Your task to perform on an android device: Open Maps and search for coffee Image 0: 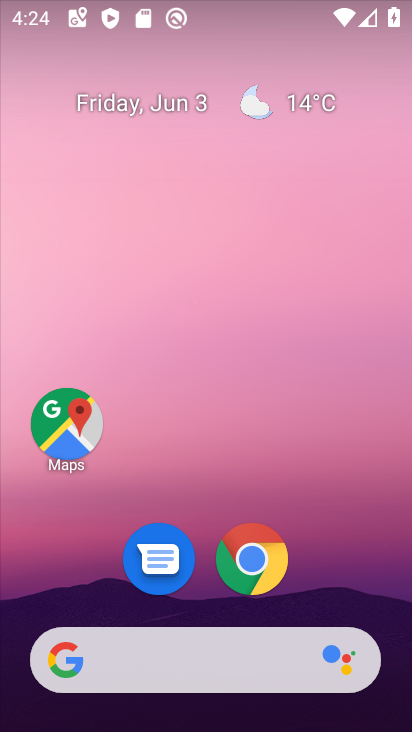
Step 0: click (59, 412)
Your task to perform on an android device: Open Maps and search for coffee Image 1: 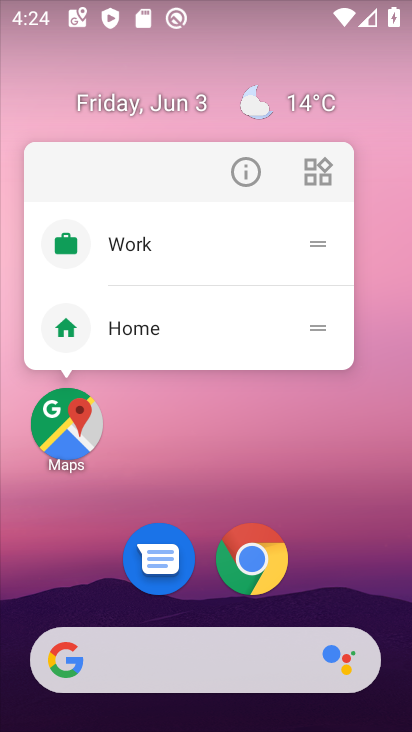
Step 1: click (72, 438)
Your task to perform on an android device: Open Maps and search for coffee Image 2: 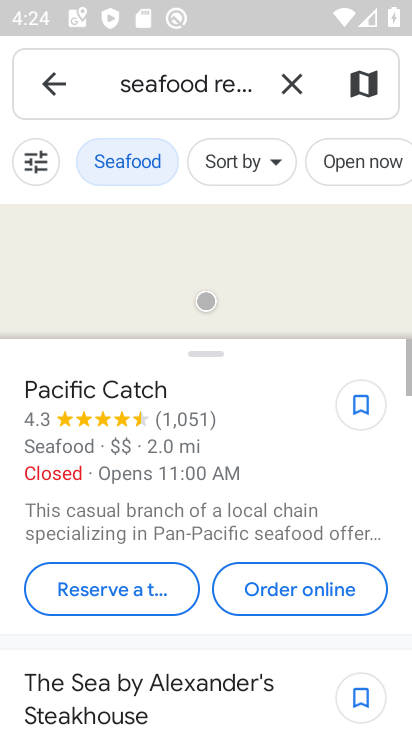
Step 2: click (291, 78)
Your task to perform on an android device: Open Maps and search for coffee Image 3: 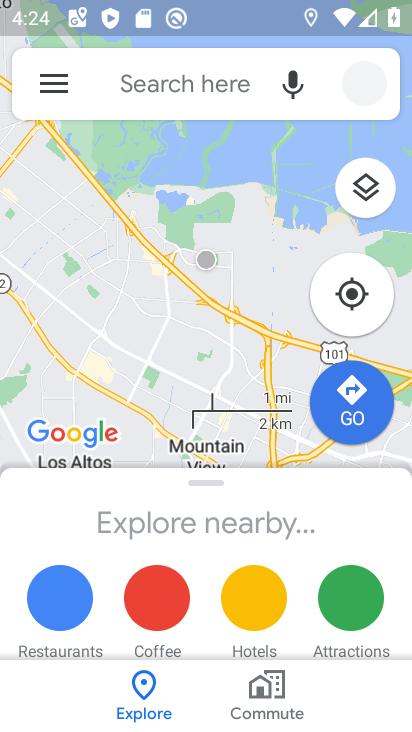
Step 3: click (148, 81)
Your task to perform on an android device: Open Maps and search for coffee Image 4: 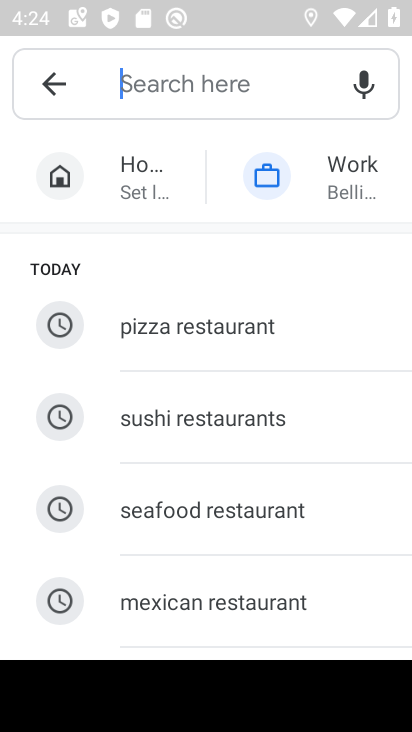
Step 4: type " coffee"
Your task to perform on an android device: Open Maps and search for coffee Image 5: 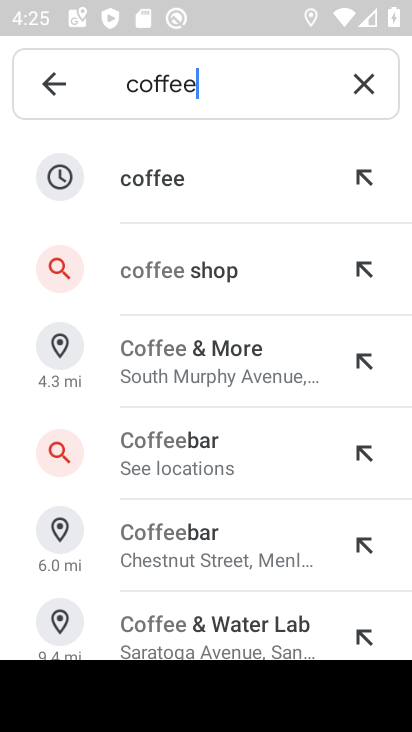
Step 5: click (150, 178)
Your task to perform on an android device: Open Maps and search for coffee Image 6: 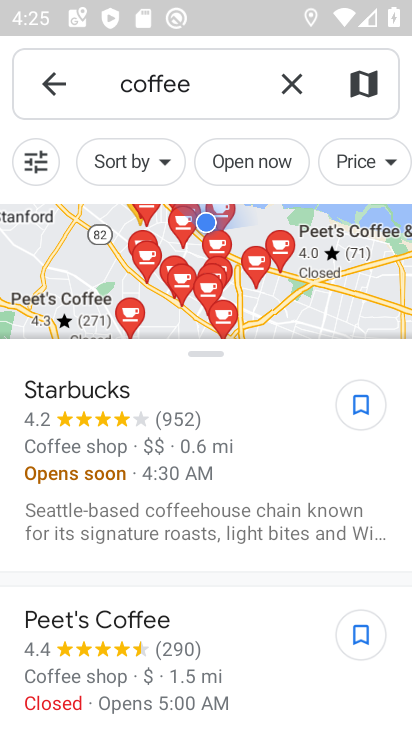
Step 6: task complete